Your task to perform on an android device: open app "Facebook Lite" Image 0: 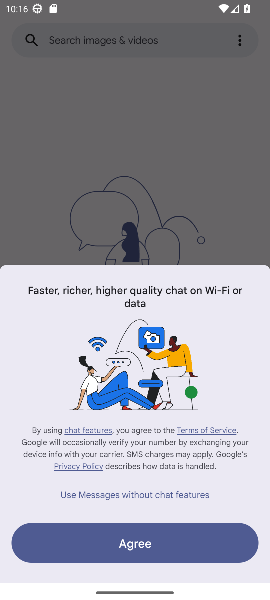
Step 0: press home button
Your task to perform on an android device: open app "Facebook Lite" Image 1: 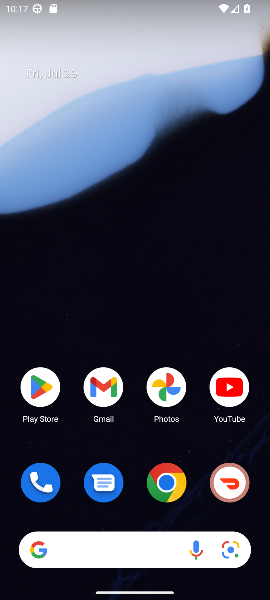
Step 1: click (31, 392)
Your task to perform on an android device: open app "Facebook Lite" Image 2: 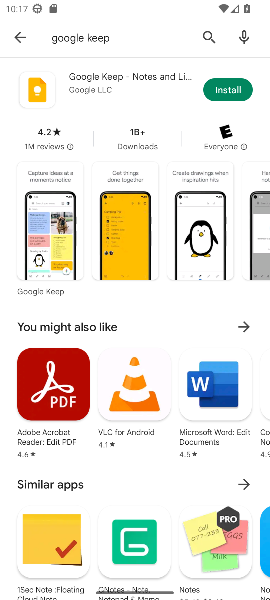
Step 2: click (211, 35)
Your task to perform on an android device: open app "Facebook Lite" Image 3: 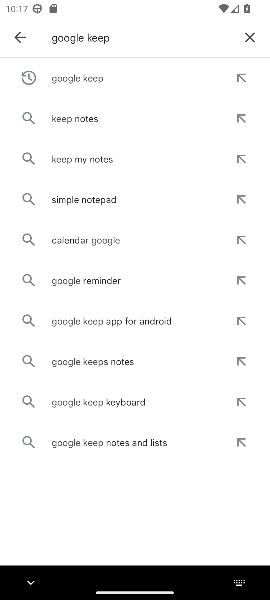
Step 3: click (249, 34)
Your task to perform on an android device: open app "Facebook Lite" Image 4: 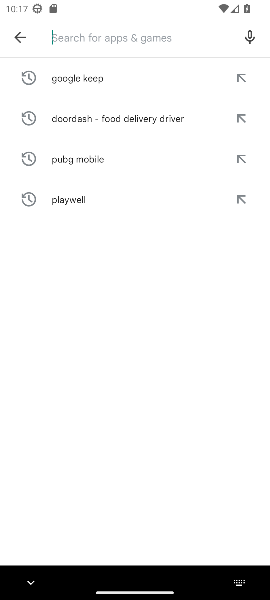
Step 4: type "Facebook Lite"
Your task to perform on an android device: open app "Facebook Lite" Image 5: 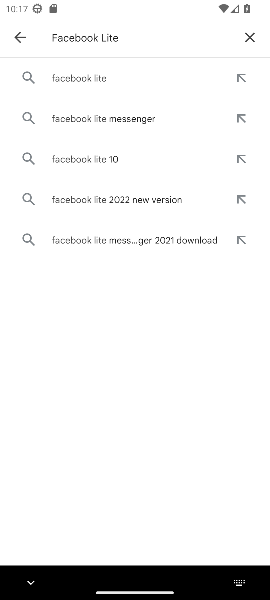
Step 5: click (83, 83)
Your task to perform on an android device: open app "Facebook Lite" Image 6: 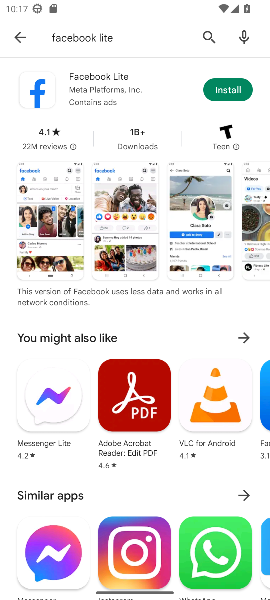
Step 6: task complete